Your task to perform on an android device: See recent photos Image 0: 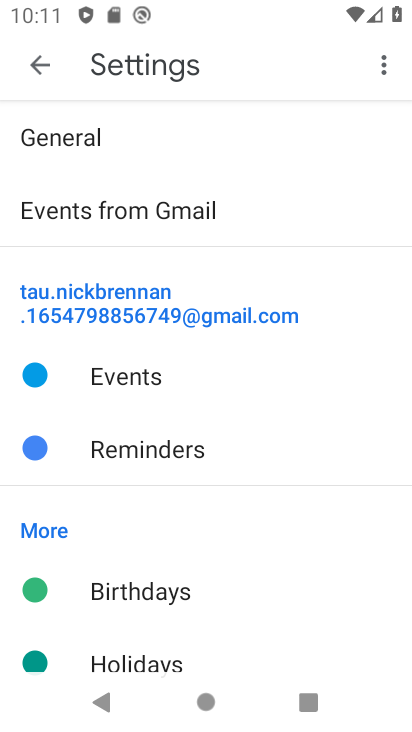
Step 0: press home button
Your task to perform on an android device: See recent photos Image 1: 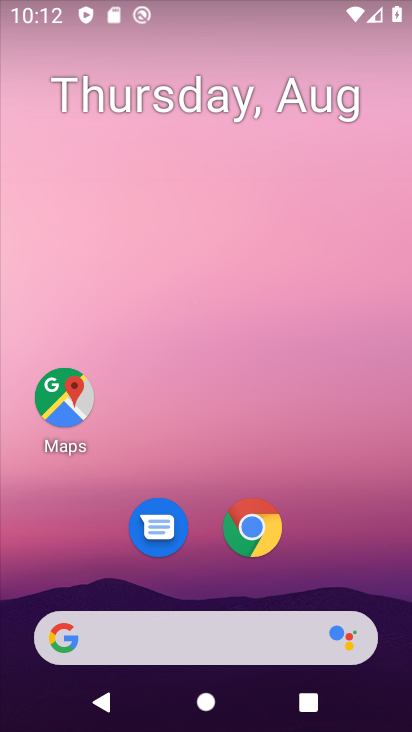
Step 1: drag from (264, 660) to (321, 105)
Your task to perform on an android device: See recent photos Image 2: 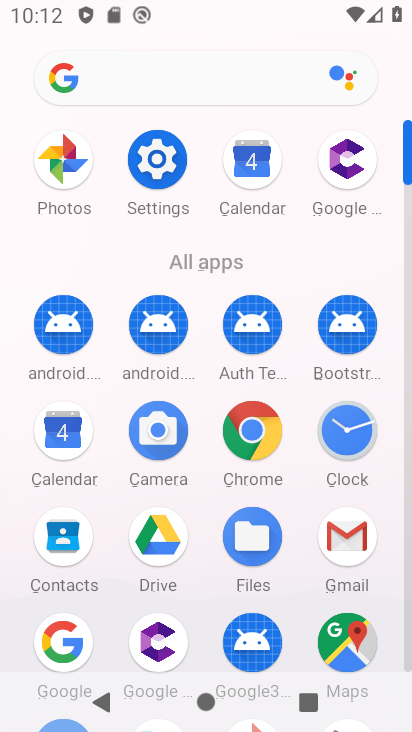
Step 2: click (66, 160)
Your task to perform on an android device: See recent photos Image 3: 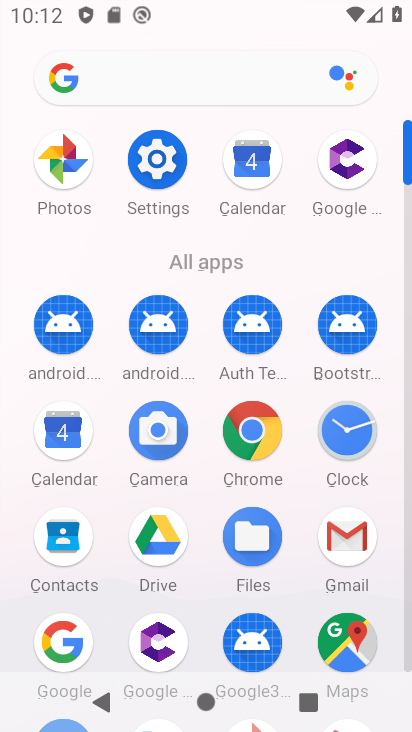
Step 3: click (66, 160)
Your task to perform on an android device: See recent photos Image 4: 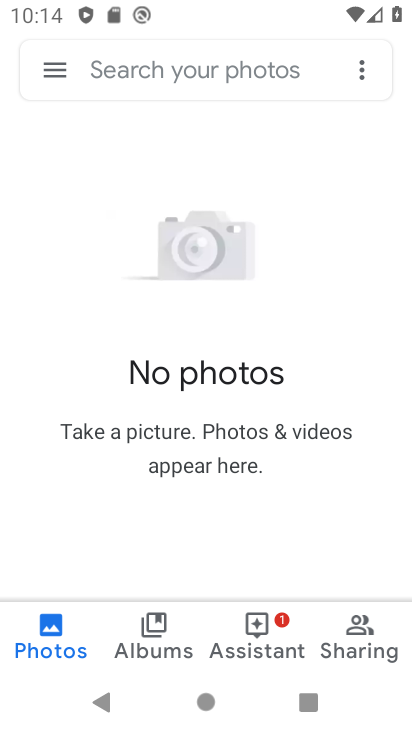
Step 4: task complete